Your task to perform on an android device: Search for Italian restaurants on Maps Image 0: 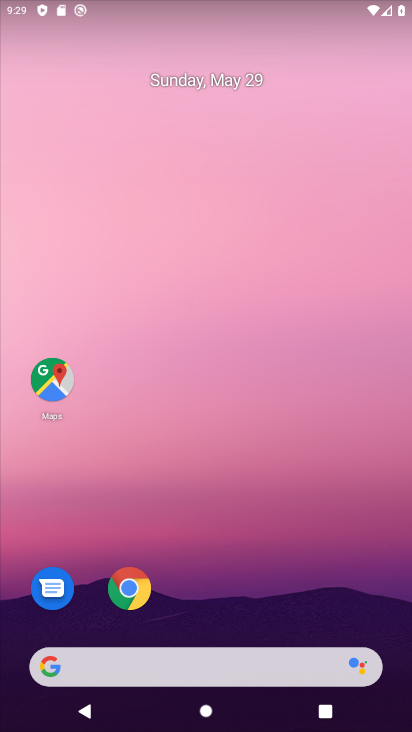
Step 0: click (46, 376)
Your task to perform on an android device: Search for Italian restaurants on Maps Image 1: 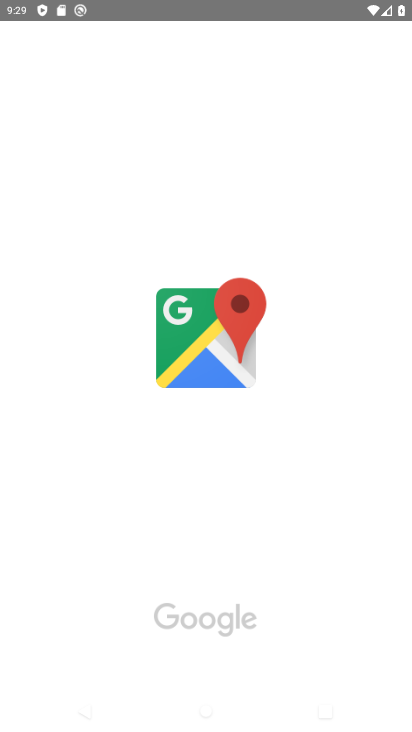
Step 1: click (209, 37)
Your task to perform on an android device: Search for Italian restaurants on Maps Image 2: 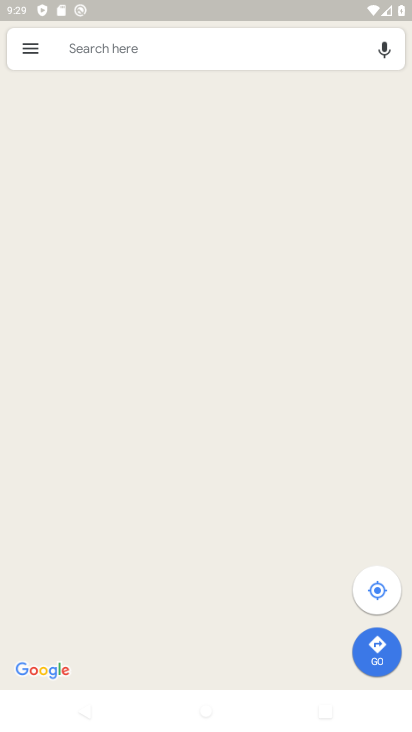
Step 2: click (216, 52)
Your task to perform on an android device: Search for Italian restaurants on Maps Image 3: 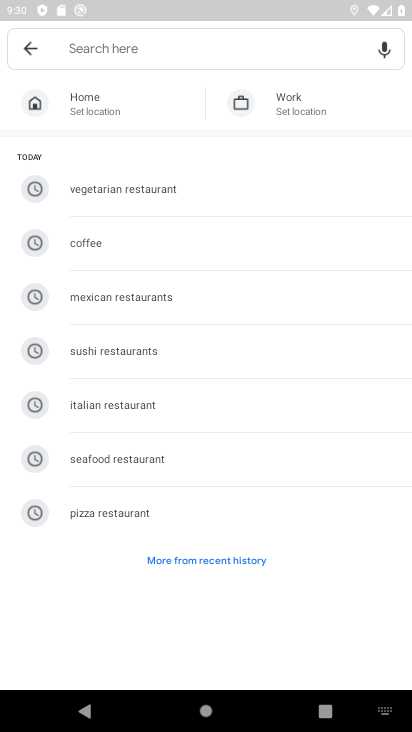
Step 3: click (398, 510)
Your task to perform on an android device: Search for Italian restaurants on Maps Image 4: 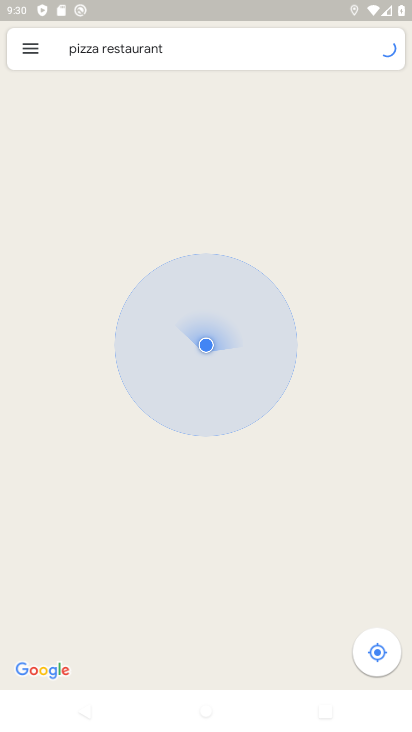
Step 4: click (94, 43)
Your task to perform on an android device: Search for Italian restaurants on Maps Image 5: 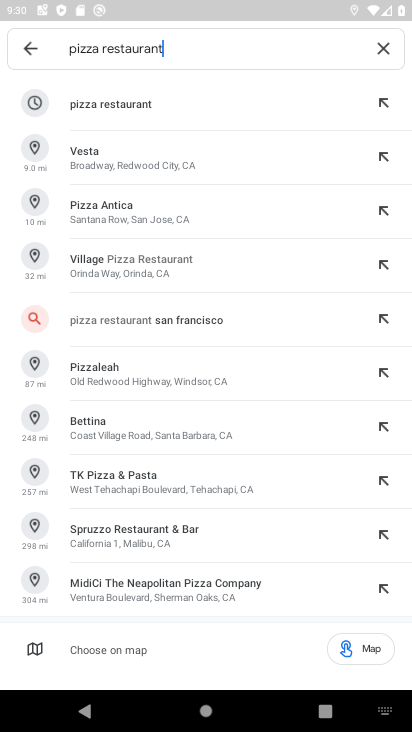
Step 5: type "Italian restaurants "
Your task to perform on an android device: Search for Italian restaurants on Maps Image 6: 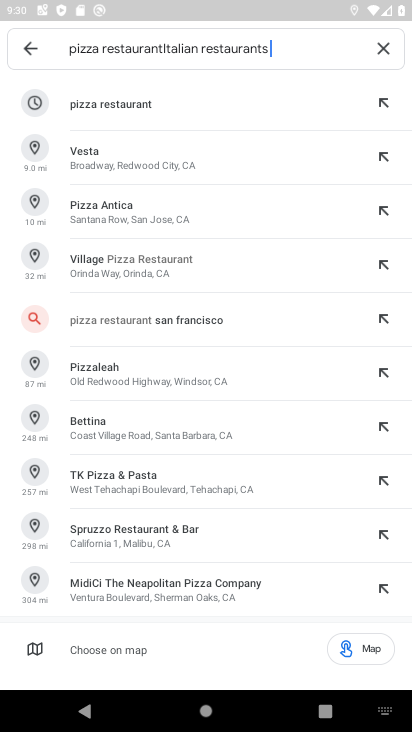
Step 6: type ""
Your task to perform on an android device: Search for Italian restaurants on Maps Image 7: 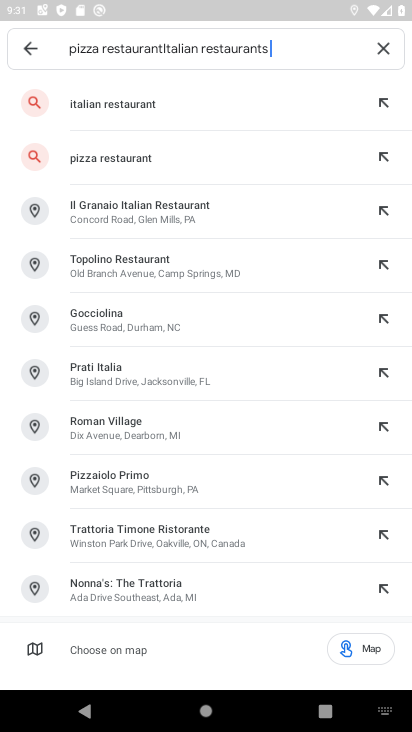
Step 7: click (379, 46)
Your task to perform on an android device: Search for Italian restaurants on Maps Image 8: 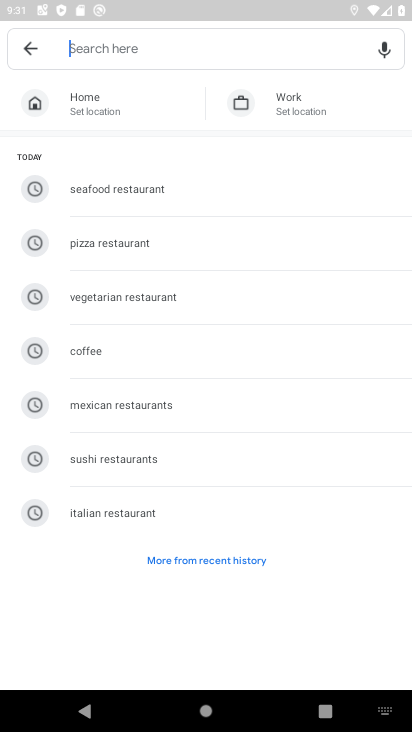
Step 8: type "Italian restaurants "
Your task to perform on an android device: Search for Italian restaurants on Maps Image 9: 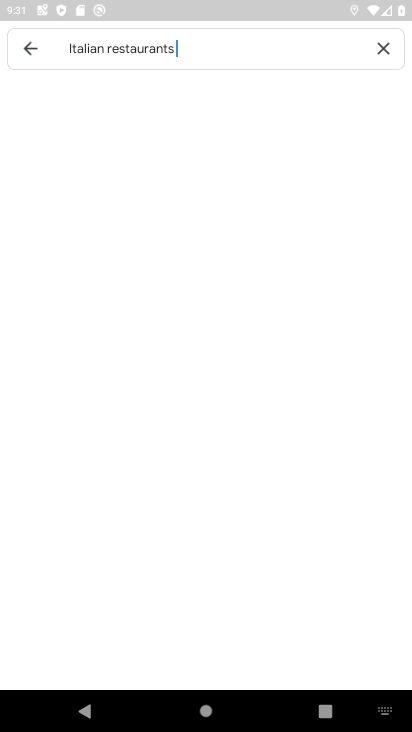
Step 9: type ""
Your task to perform on an android device: Search for Italian restaurants on Maps Image 10: 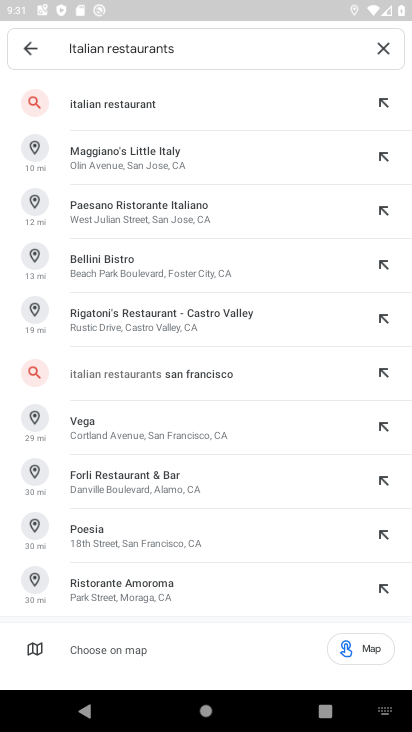
Step 10: click (122, 108)
Your task to perform on an android device: Search for Italian restaurants on Maps Image 11: 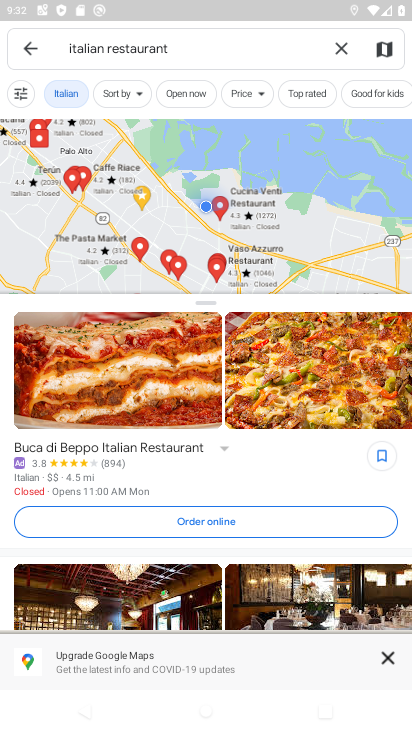
Step 11: task complete